Your task to perform on an android device: visit the assistant section in the google photos Image 0: 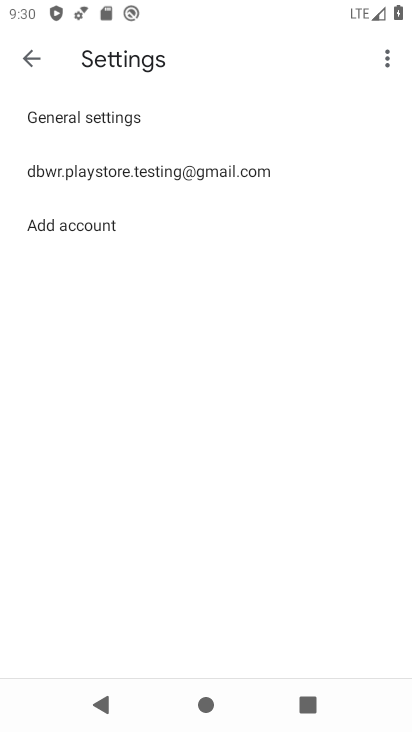
Step 0: press home button
Your task to perform on an android device: visit the assistant section in the google photos Image 1: 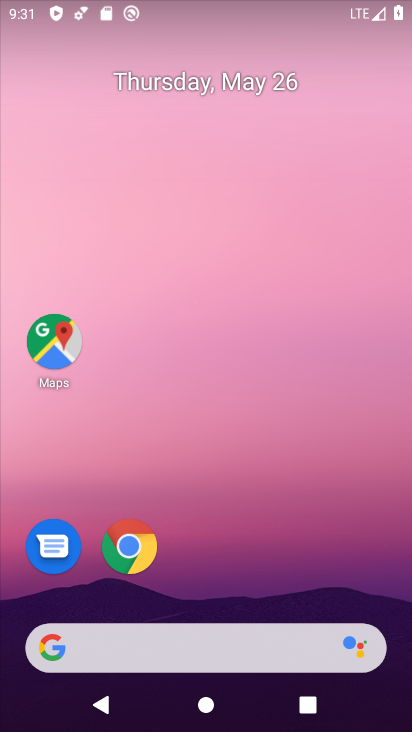
Step 1: drag from (296, 587) to (253, 147)
Your task to perform on an android device: visit the assistant section in the google photos Image 2: 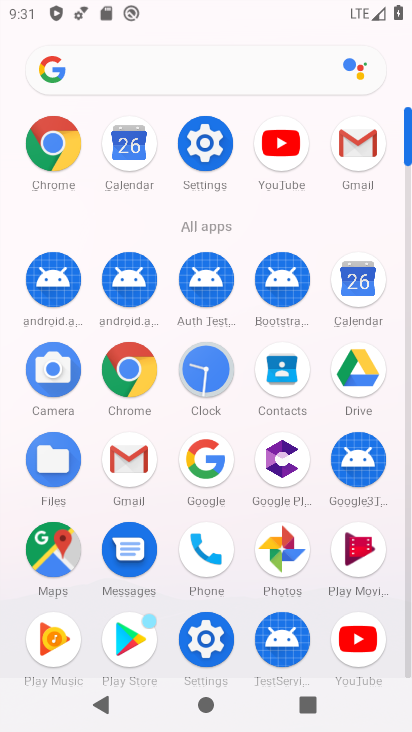
Step 2: click (274, 561)
Your task to perform on an android device: visit the assistant section in the google photos Image 3: 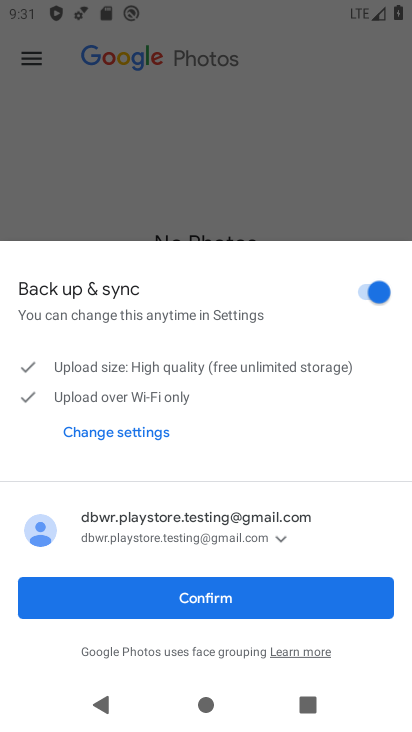
Step 3: click (270, 590)
Your task to perform on an android device: visit the assistant section in the google photos Image 4: 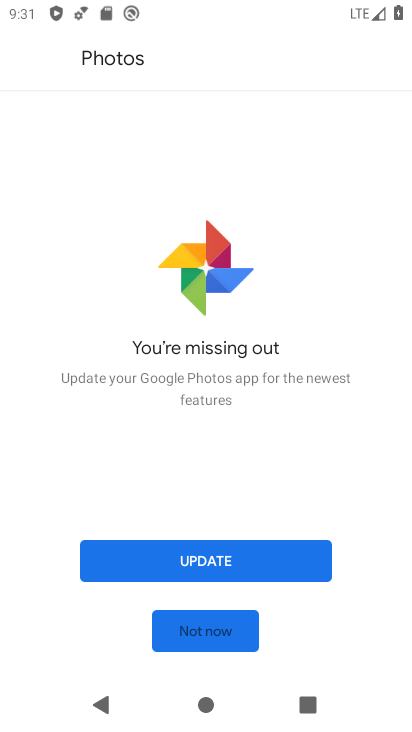
Step 4: click (264, 561)
Your task to perform on an android device: visit the assistant section in the google photos Image 5: 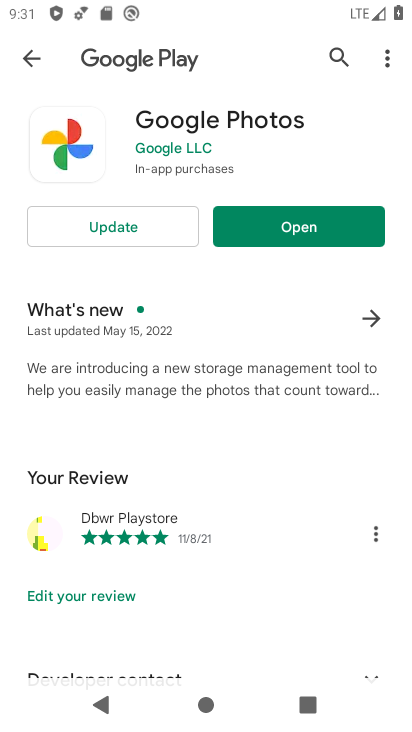
Step 5: click (121, 229)
Your task to perform on an android device: visit the assistant section in the google photos Image 6: 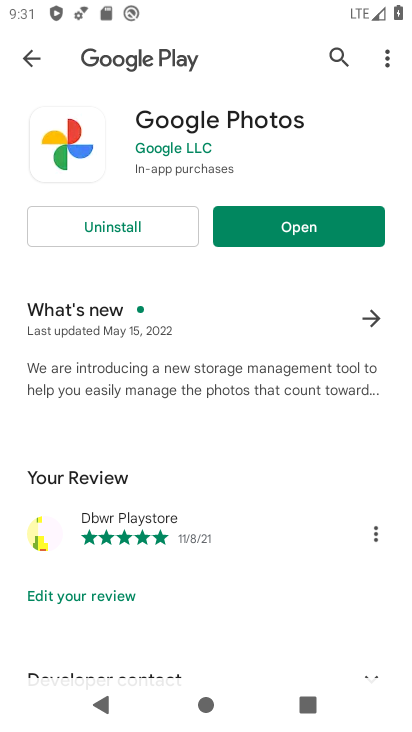
Step 6: click (278, 228)
Your task to perform on an android device: visit the assistant section in the google photos Image 7: 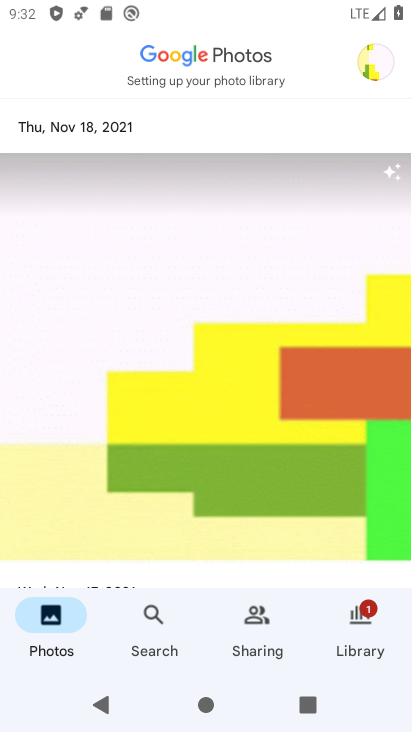
Step 7: click (358, 626)
Your task to perform on an android device: visit the assistant section in the google photos Image 8: 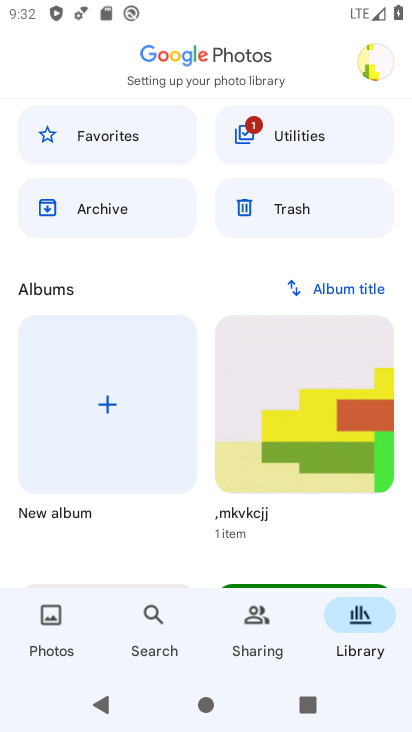
Step 8: task complete